Your task to perform on an android device: move an email to a new category in the gmail app Image 0: 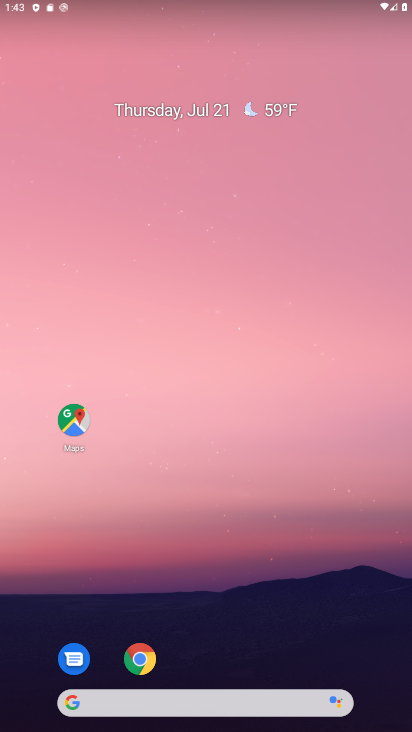
Step 0: drag from (190, 690) to (186, 102)
Your task to perform on an android device: move an email to a new category in the gmail app Image 1: 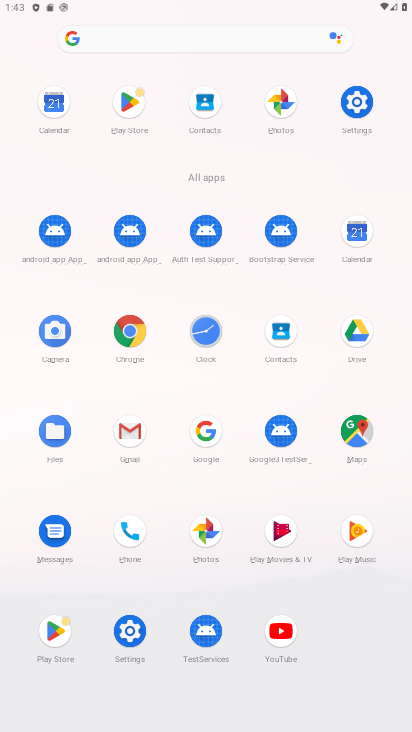
Step 1: click (124, 437)
Your task to perform on an android device: move an email to a new category in the gmail app Image 2: 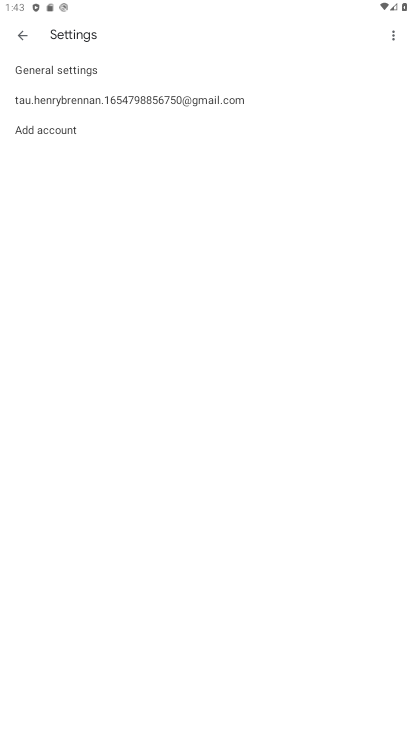
Step 2: click (28, 52)
Your task to perform on an android device: move an email to a new category in the gmail app Image 3: 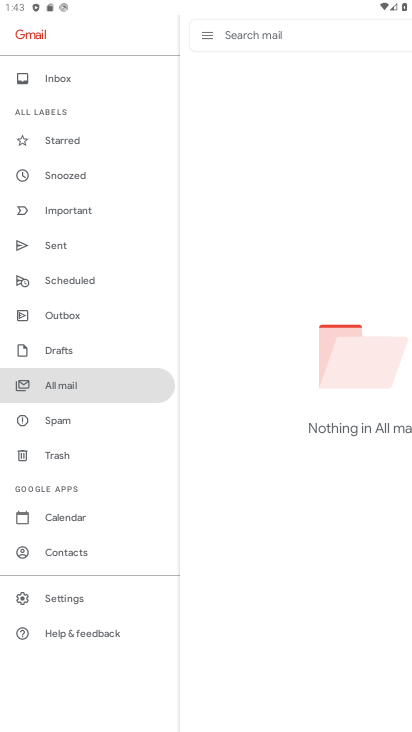
Step 3: click (83, 395)
Your task to perform on an android device: move an email to a new category in the gmail app Image 4: 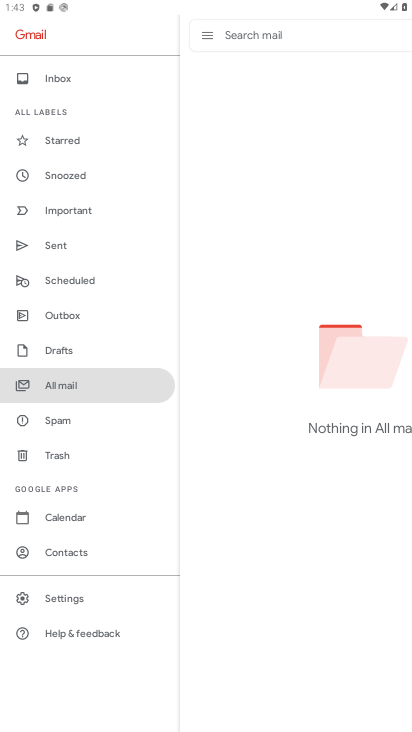
Step 4: task complete